Your task to perform on an android device: Open Yahoo.com Image 0: 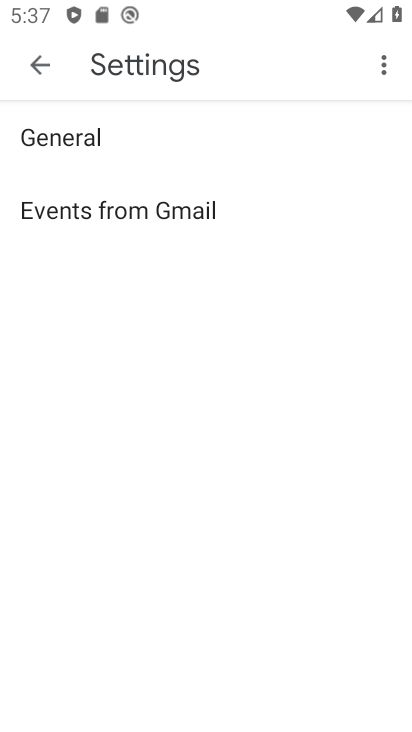
Step 0: press back button
Your task to perform on an android device: Open Yahoo.com Image 1: 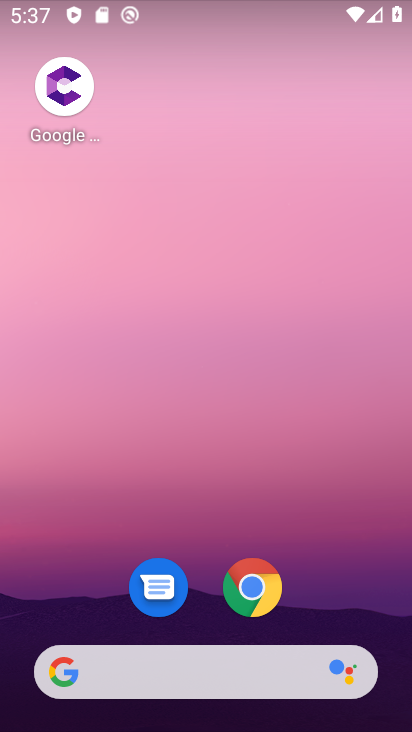
Step 1: drag from (363, 582) to (261, 0)
Your task to perform on an android device: Open Yahoo.com Image 2: 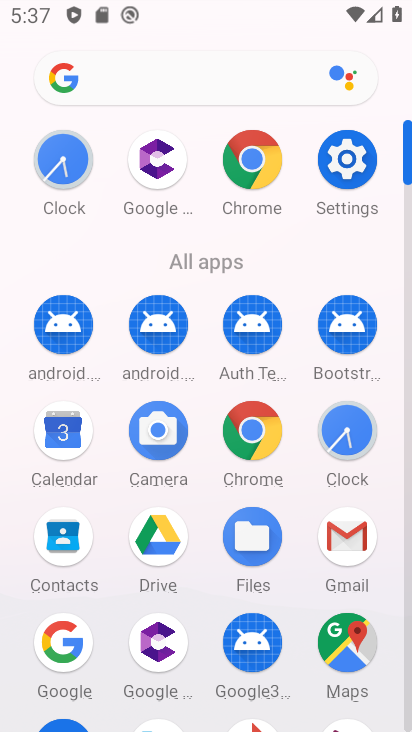
Step 2: click (249, 155)
Your task to perform on an android device: Open Yahoo.com Image 3: 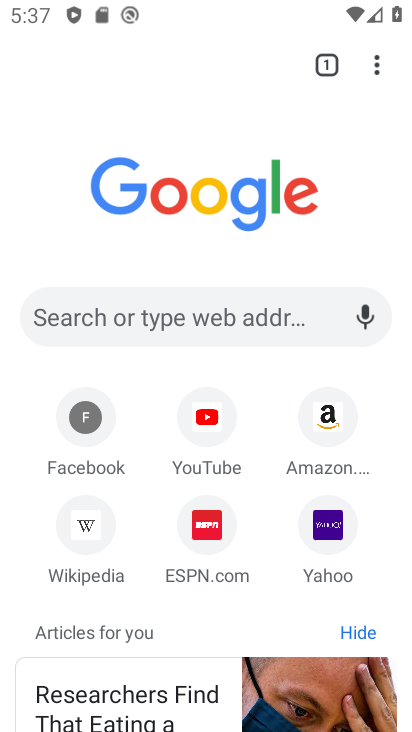
Step 3: click (145, 313)
Your task to perform on an android device: Open Yahoo.com Image 4: 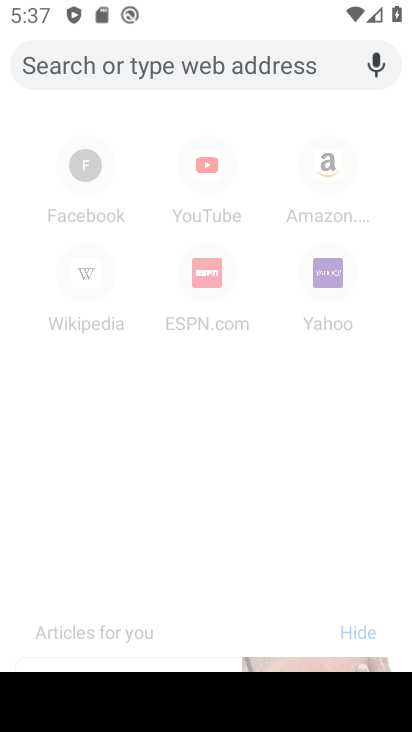
Step 4: type "Yahoo.com"
Your task to perform on an android device: Open Yahoo.com Image 5: 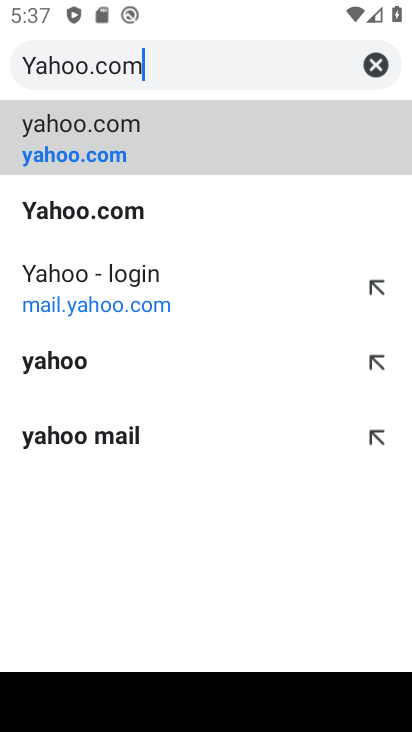
Step 5: type ""
Your task to perform on an android device: Open Yahoo.com Image 6: 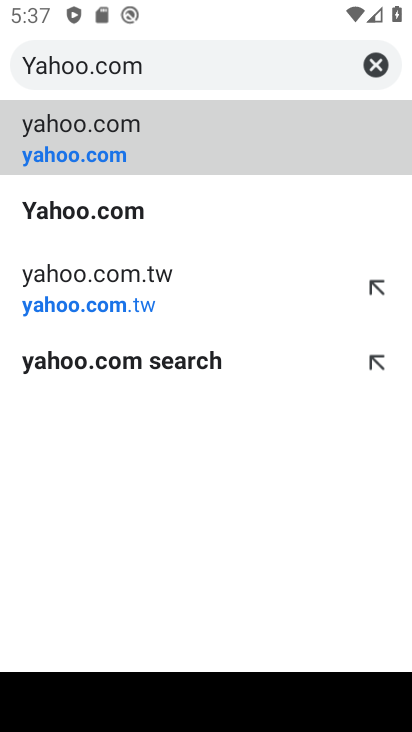
Step 6: click (135, 148)
Your task to perform on an android device: Open Yahoo.com Image 7: 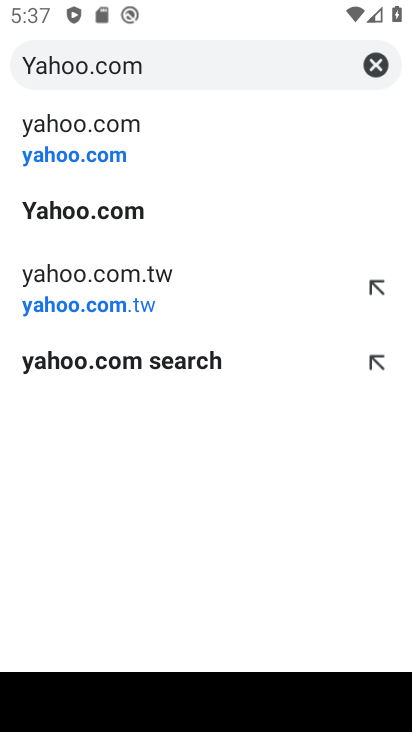
Step 7: click (104, 130)
Your task to perform on an android device: Open Yahoo.com Image 8: 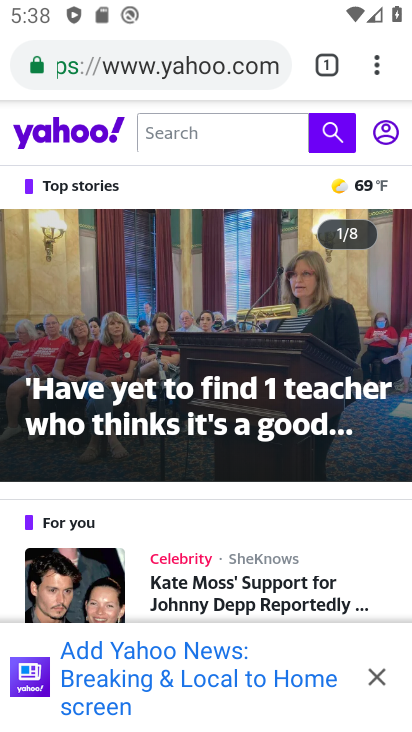
Step 8: task complete